Your task to perform on an android device: Search for vegetarian restaurants on Maps Image 0: 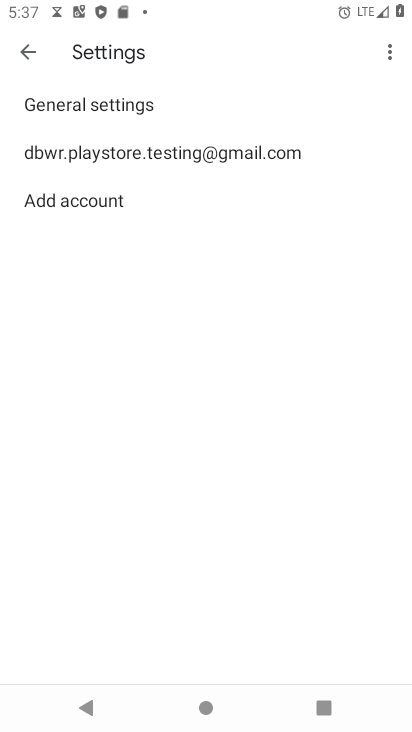
Step 0: press home button
Your task to perform on an android device: Search for vegetarian restaurants on Maps Image 1: 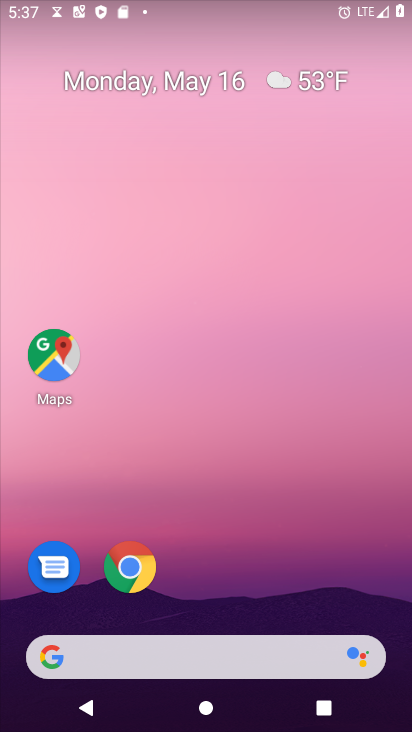
Step 1: drag from (298, 663) to (348, 8)
Your task to perform on an android device: Search for vegetarian restaurants on Maps Image 2: 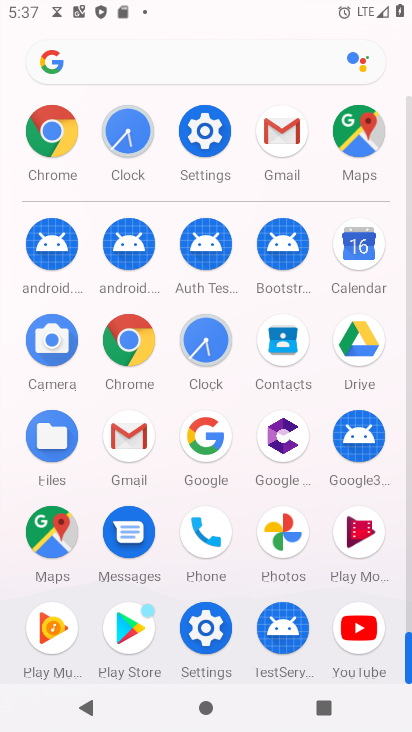
Step 2: click (61, 539)
Your task to perform on an android device: Search for vegetarian restaurants on Maps Image 3: 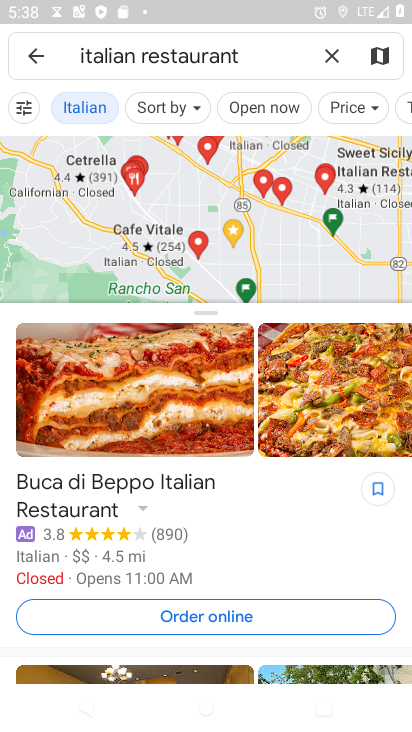
Step 3: click (338, 60)
Your task to perform on an android device: Search for vegetarian restaurants on Maps Image 4: 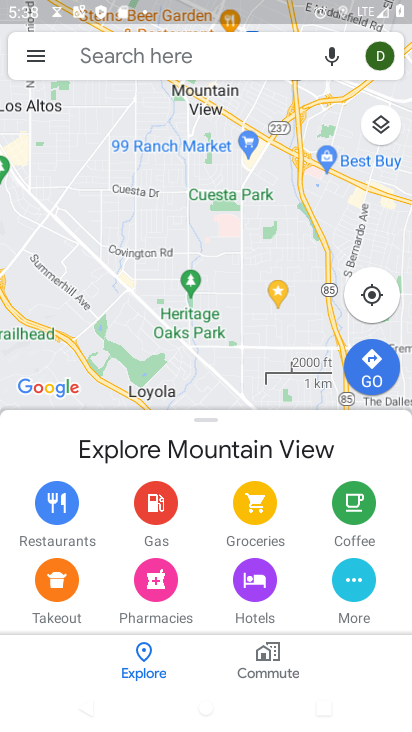
Step 4: click (208, 62)
Your task to perform on an android device: Search for vegetarian restaurants on Maps Image 5: 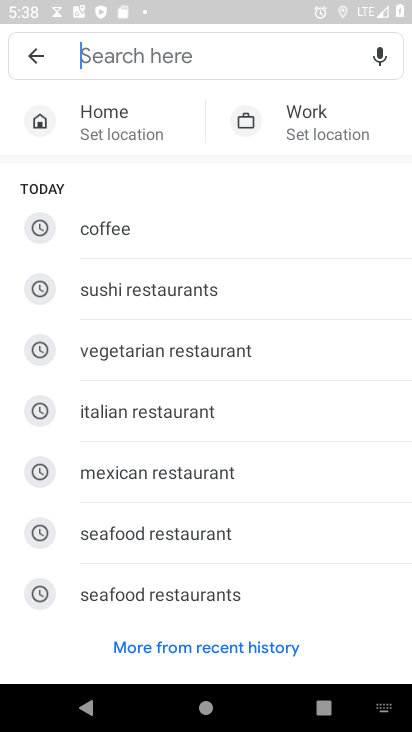
Step 5: click (144, 353)
Your task to perform on an android device: Search for vegetarian restaurants on Maps Image 6: 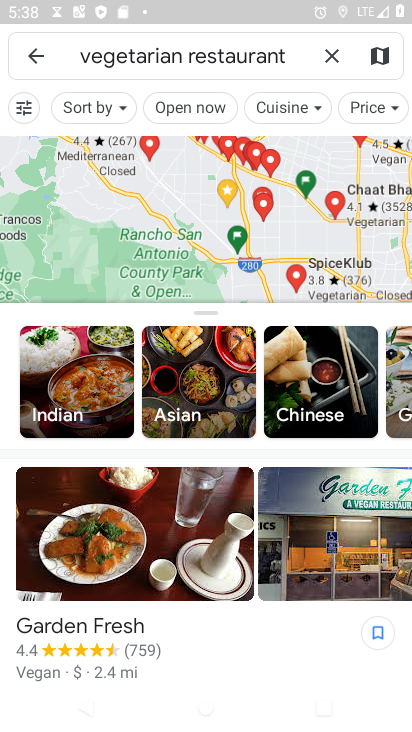
Step 6: task complete